Your task to perform on an android device: Search for the best rated mattress topper on Target. Image 0: 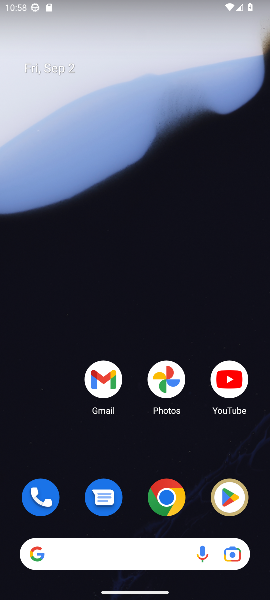
Step 0: click (127, 148)
Your task to perform on an android device: Search for the best rated mattress topper on Target. Image 1: 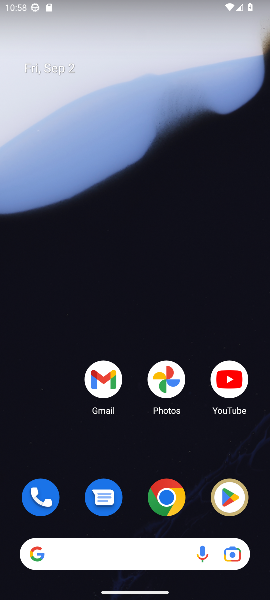
Step 1: click (138, 14)
Your task to perform on an android device: Search for the best rated mattress topper on Target. Image 2: 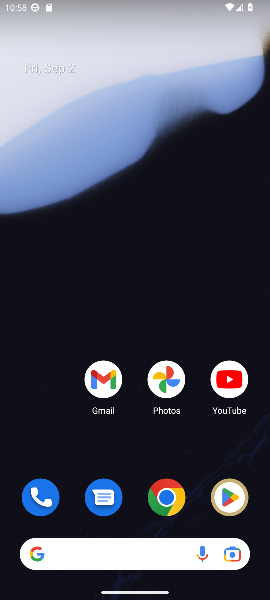
Step 2: drag from (131, 515) to (130, 260)
Your task to perform on an android device: Search for the best rated mattress topper on Target. Image 3: 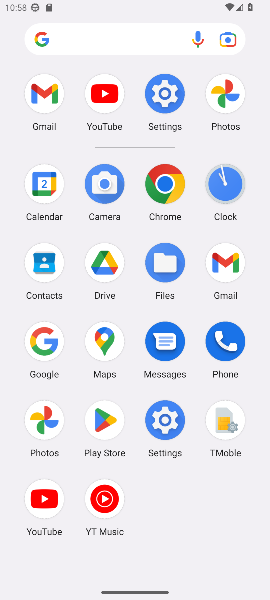
Step 3: click (35, 357)
Your task to perform on an android device: Search for the best rated mattress topper on Target. Image 4: 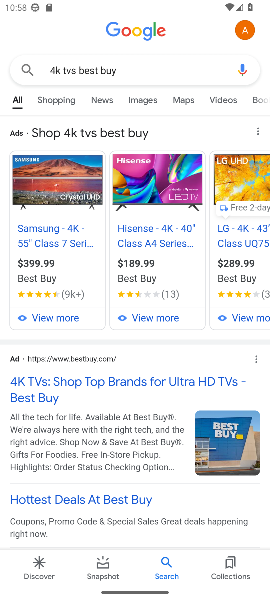
Step 4: click (129, 65)
Your task to perform on an android device: Search for the best rated mattress topper on Target. Image 5: 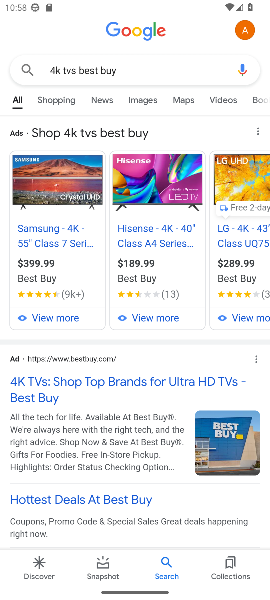
Step 5: click (129, 65)
Your task to perform on an android device: Search for the best rated mattress topper on Target. Image 6: 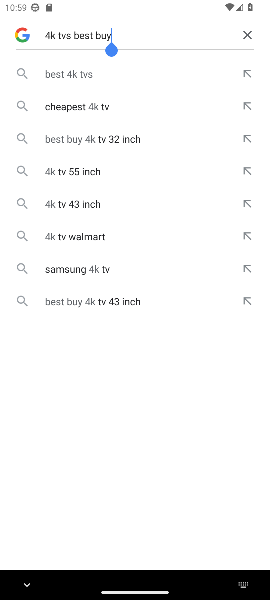
Step 6: click (247, 29)
Your task to perform on an android device: Search for the best rated mattress topper on Target. Image 7: 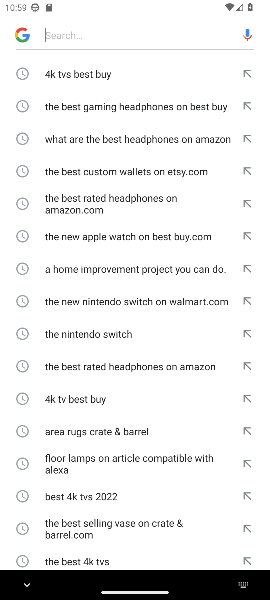
Step 7: type " the best rated mattress topper on Target."
Your task to perform on an android device: Search for the best rated mattress topper on Target. Image 8: 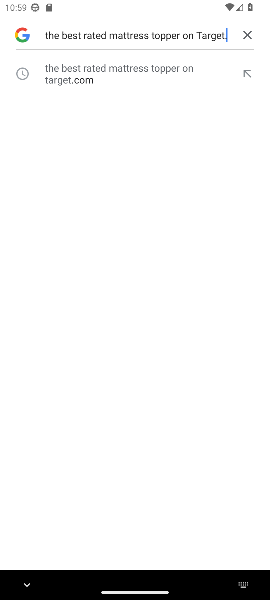
Step 8: click (89, 73)
Your task to perform on an android device: Search for the best rated mattress topper on Target. Image 9: 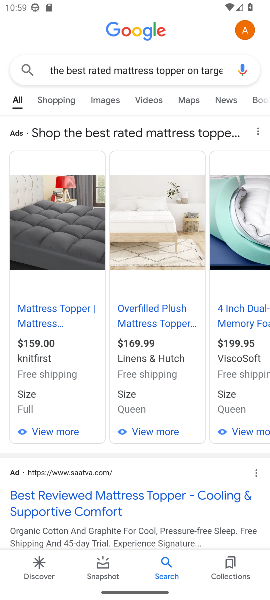
Step 9: click (79, 138)
Your task to perform on an android device: Search for the best rated mattress topper on Target. Image 10: 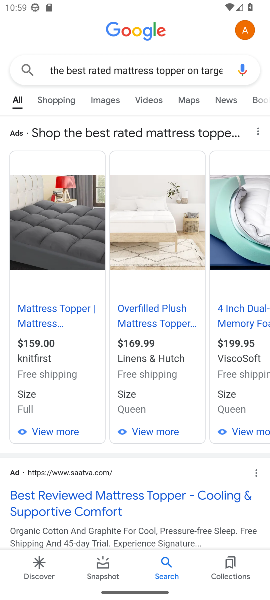
Step 10: task complete